Your task to perform on an android device: change the clock display to analog Image 0: 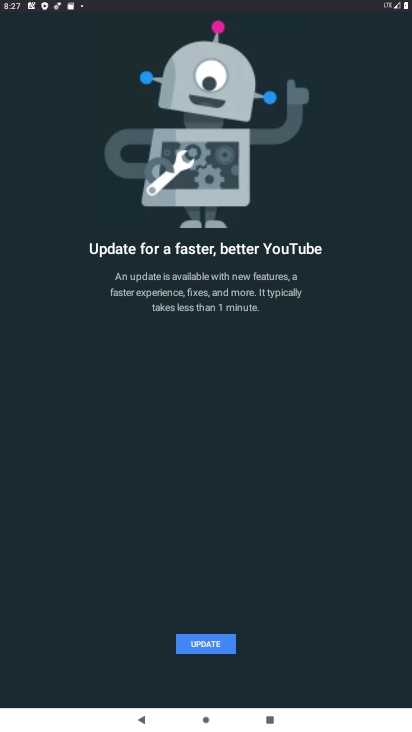
Step 0: press home button
Your task to perform on an android device: change the clock display to analog Image 1: 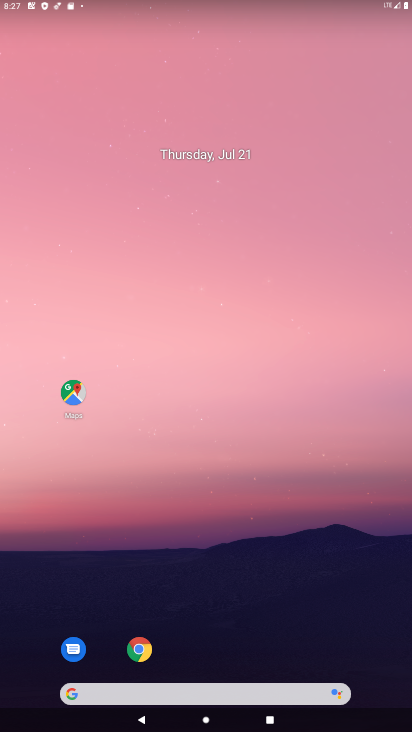
Step 1: drag from (201, 583) to (20, 4)
Your task to perform on an android device: change the clock display to analog Image 2: 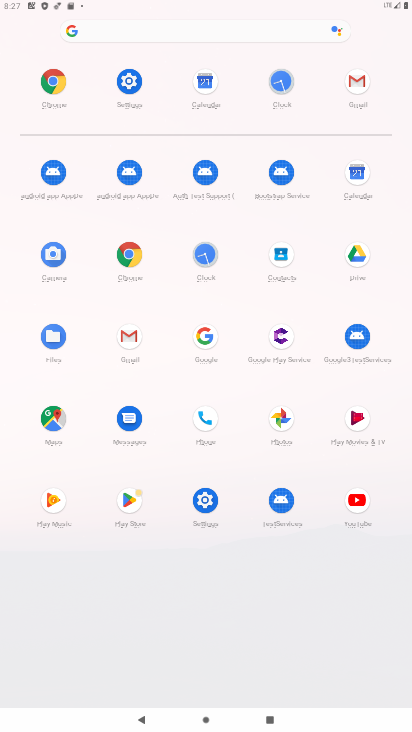
Step 2: click (199, 259)
Your task to perform on an android device: change the clock display to analog Image 3: 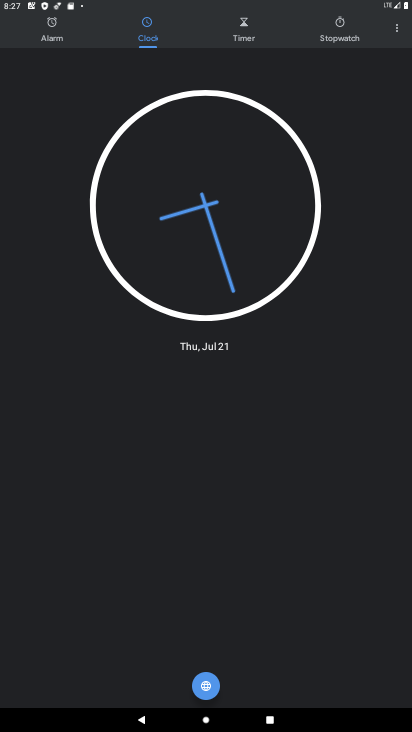
Step 3: click (395, 29)
Your task to perform on an android device: change the clock display to analog Image 4: 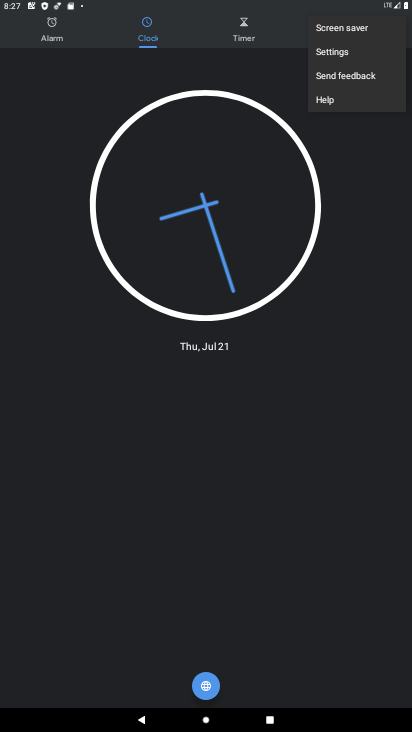
Step 4: click (348, 59)
Your task to perform on an android device: change the clock display to analog Image 5: 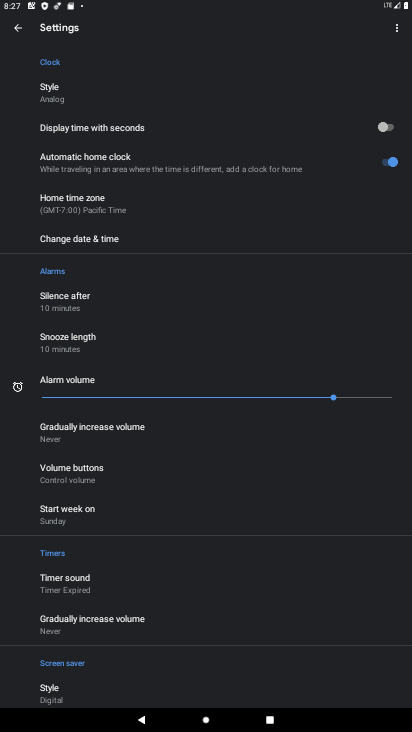
Step 5: task complete